Your task to perform on an android device: toggle data saver in the chrome app Image 0: 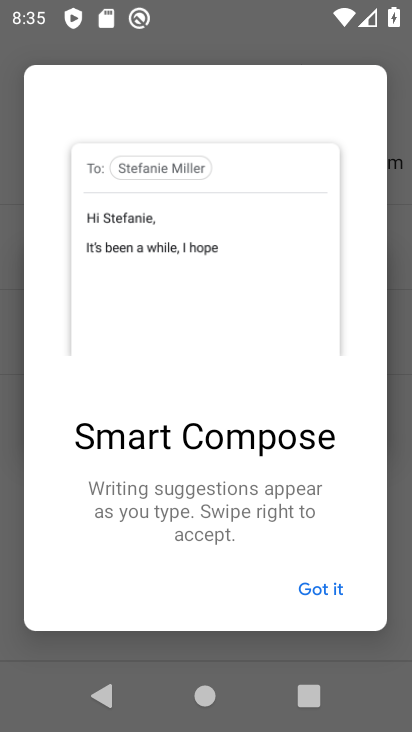
Step 0: press home button
Your task to perform on an android device: toggle data saver in the chrome app Image 1: 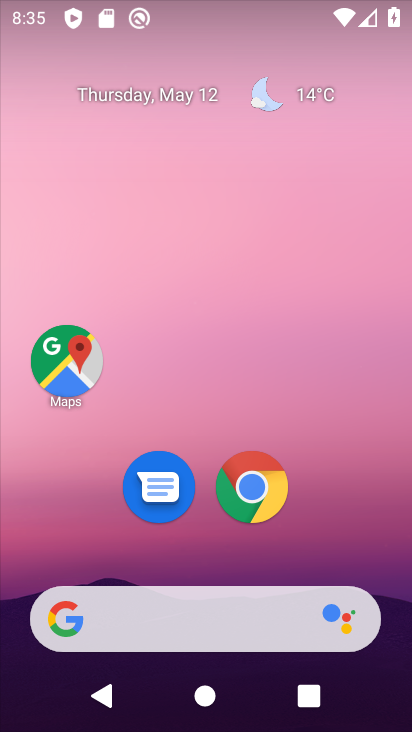
Step 1: click (256, 478)
Your task to perform on an android device: toggle data saver in the chrome app Image 2: 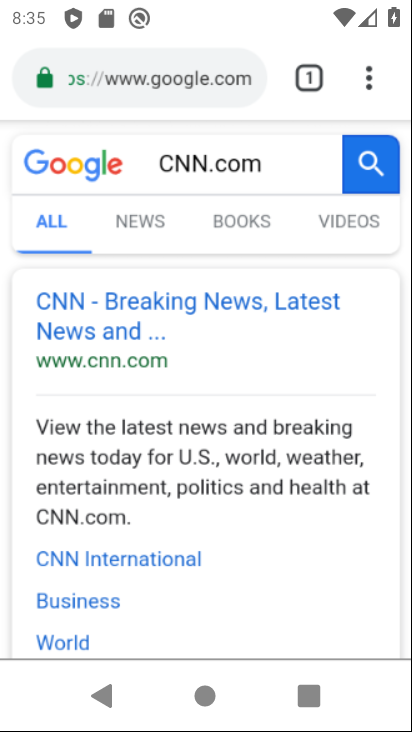
Step 2: click (361, 84)
Your task to perform on an android device: toggle data saver in the chrome app Image 3: 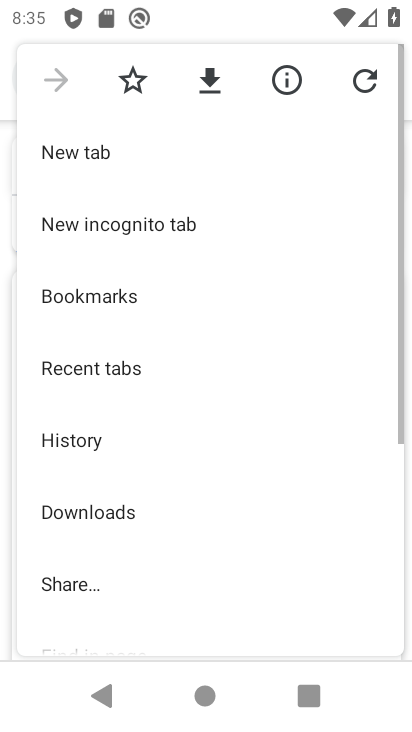
Step 3: drag from (72, 583) to (243, 72)
Your task to perform on an android device: toggle data saver in the chrome app Image 4: 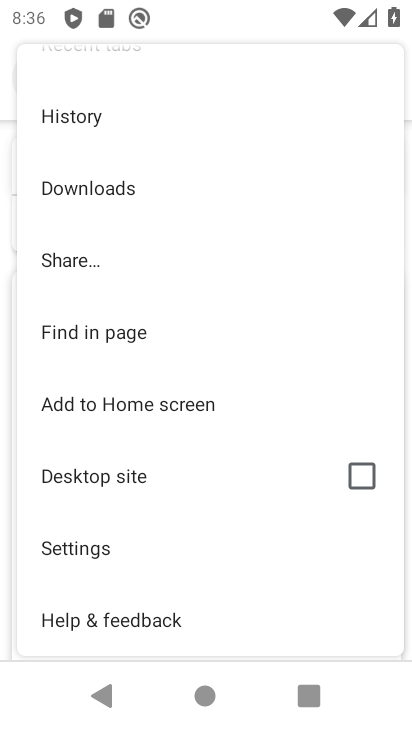
Step 4: click (83, 544)
Your task to perform on an android device: toggle data saver in the chrome app Image 5: 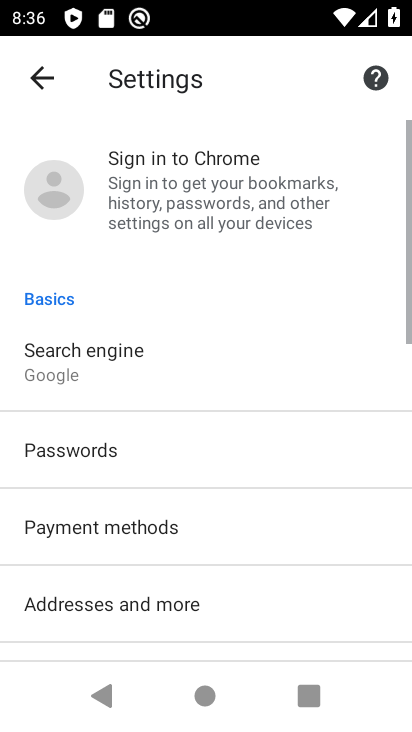
Step 5: drag from (35, 635) to (214, 113)
Your task to perform on an android device: toggle data saver in the chrome app Image 6: 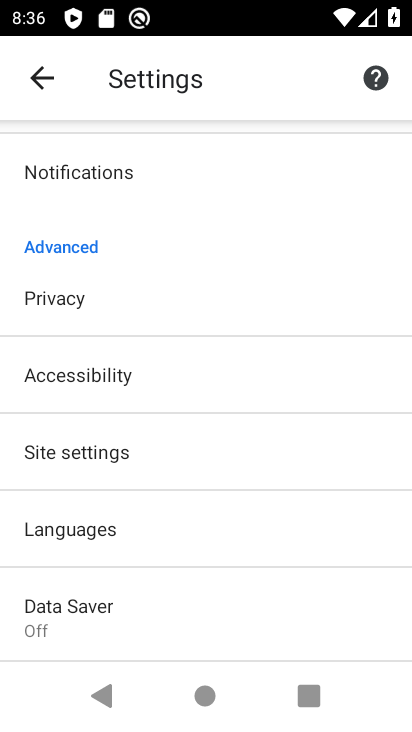
Step 6: click (44, 631)
Your task to perform on an android device: toggle data saver in the chrome app Image 7: 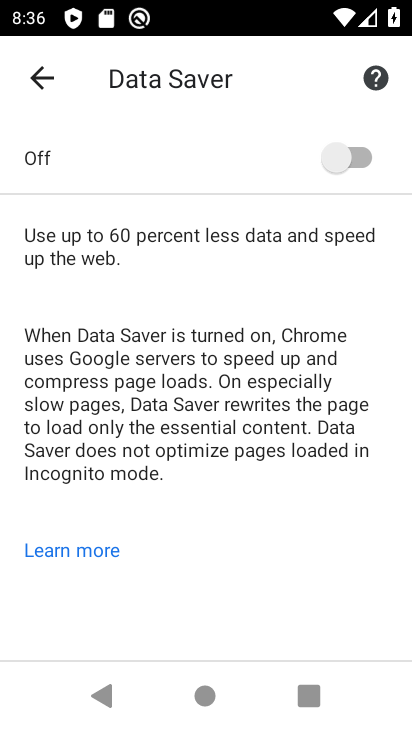
Step 7: click (348, 166)
Your task to perform on an android device: toggle data saver in the chrome app Image 8: 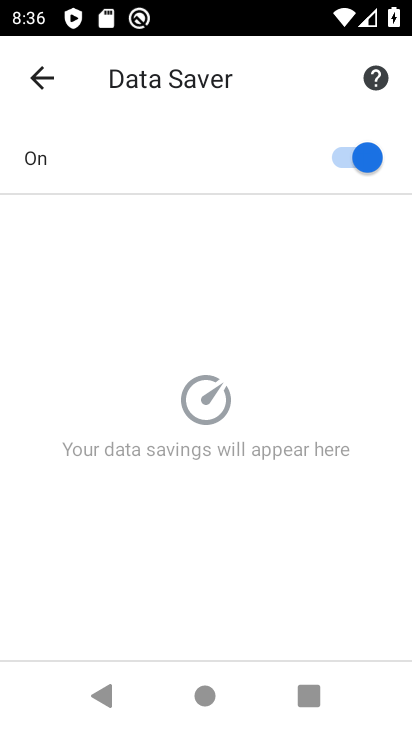
Step 8: task complete